Your task to perform on an android device: add a label to a message in the gmail app Image 0: 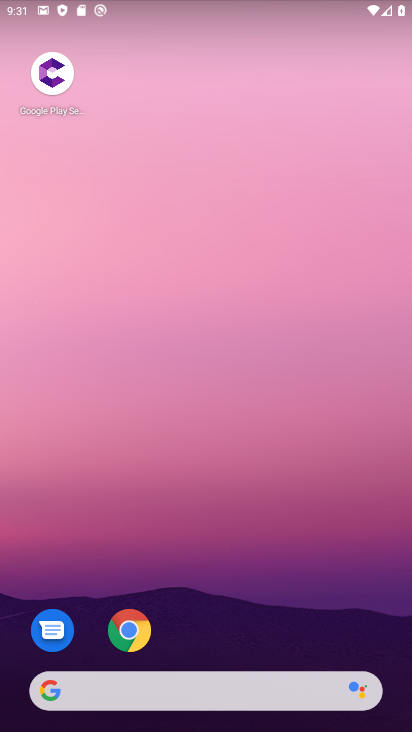
Step 0: press home button
Your task to perform on an android device: add a label to a message in the gmail app Image 1: 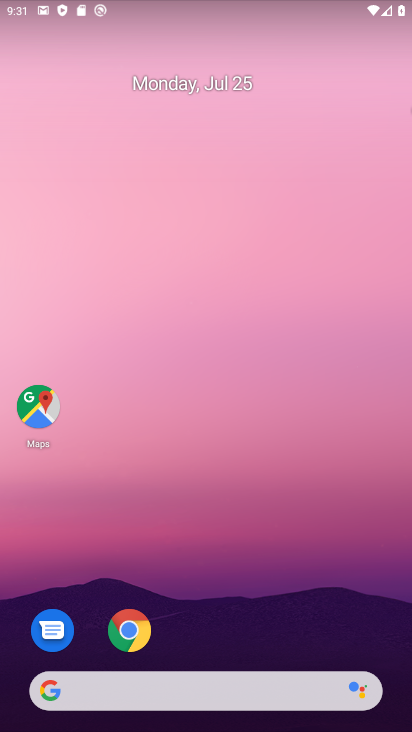
Step 1: drag from (264, 631) to (291, 102)
Your task to perform on an android device: add a label to a message in the gmail app Image 2: 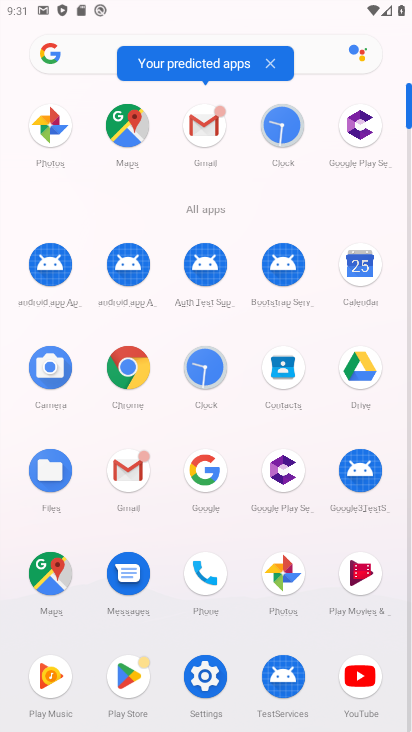
Step 2: click (195, 126)
Your task to perform on an android device: add a label to a message in the gmail app Image 3: 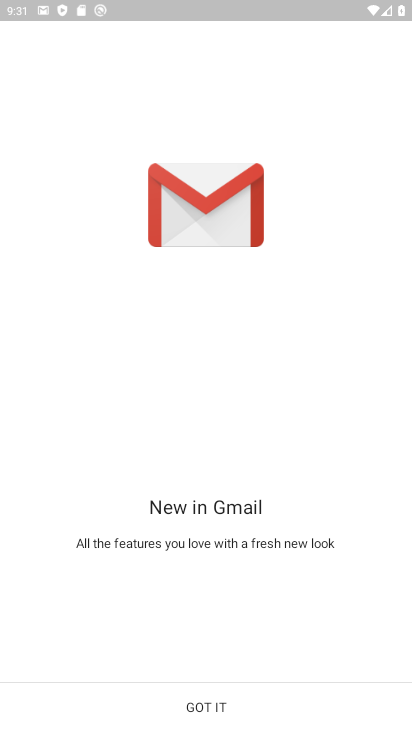
Step 3: click (198, 712)
Your task to perform on an android device: add a label to a message in the gmail app Image 4: 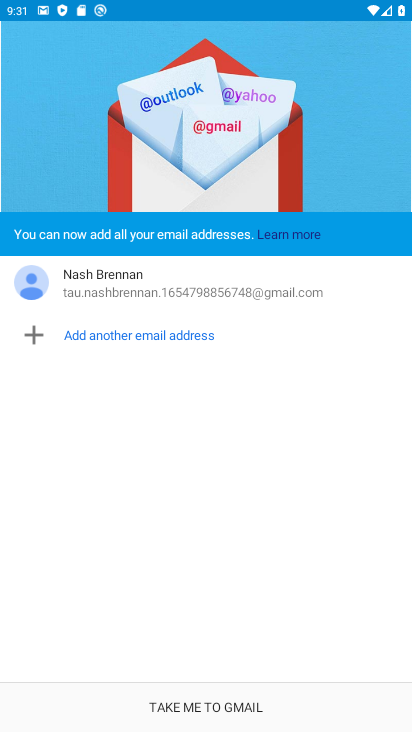
Step 4: click (205, 700)
Your task to perform on an android device: add a label to a message in the gmail app Image 5: 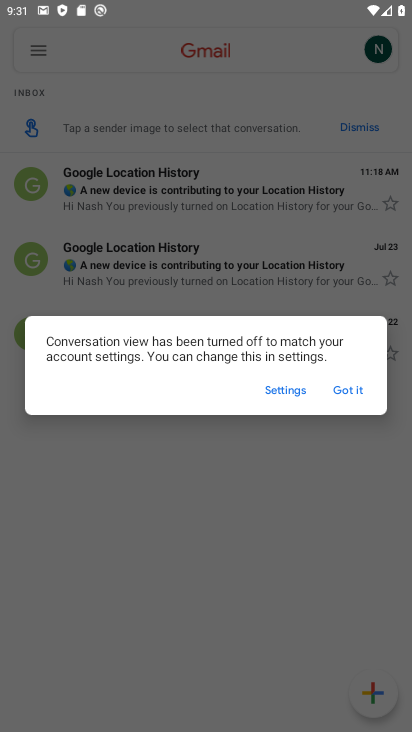
Step 5: click (348, 387)
Your task to perform on an android device: add a label to a message in the gmail app Image 6: 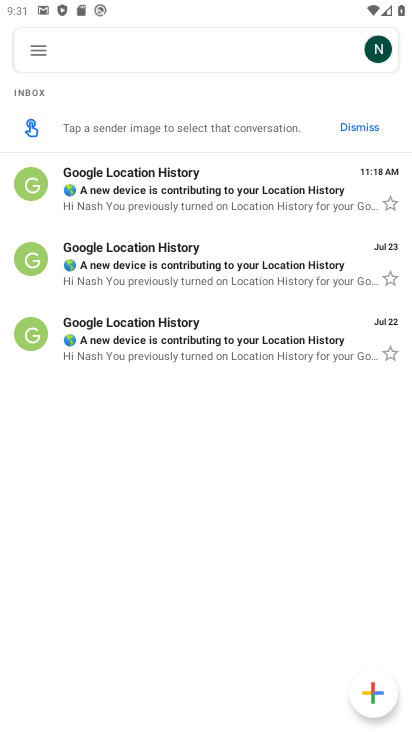
Step 6: click (138, 181)
Your task to perform on an android device: add a label to a message in the gmail app Image 7: 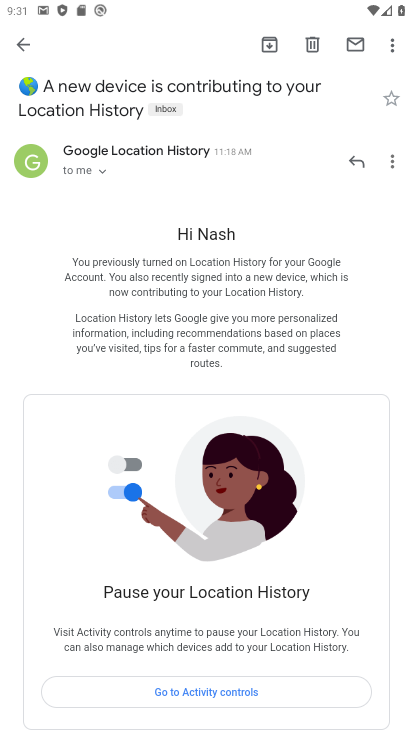
Step 7: click (164, 110)
Your task to perform on an android device: add a label to a message in the gmail app Image 8: 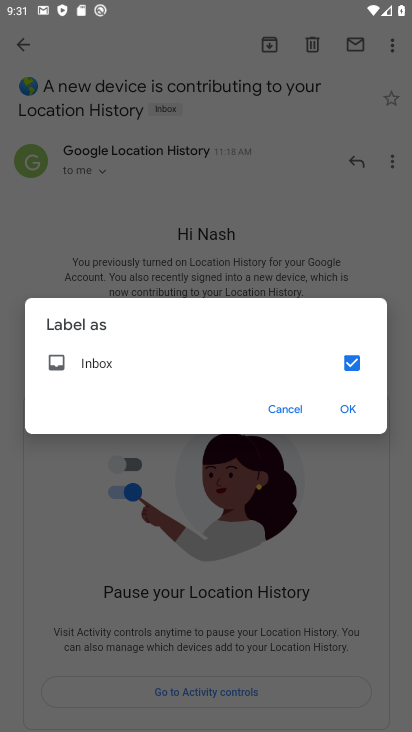
Step 8: click (339, 404)
Your task to perform on an android device: add a label to a message in the gmail app Image 9: 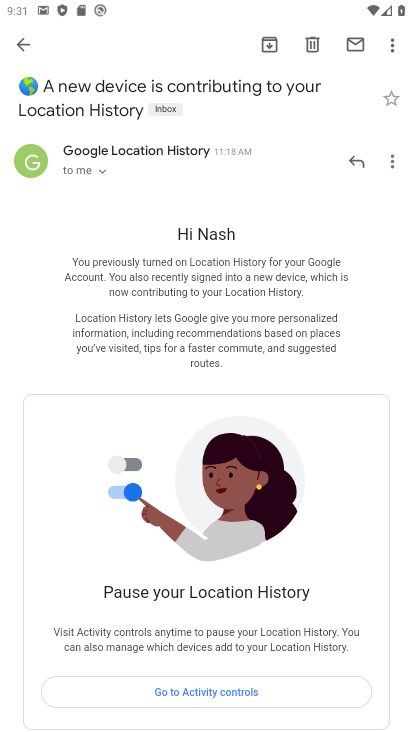
Step 9: task complete